Your task to perform on an android device: Open my contact list Image 0: 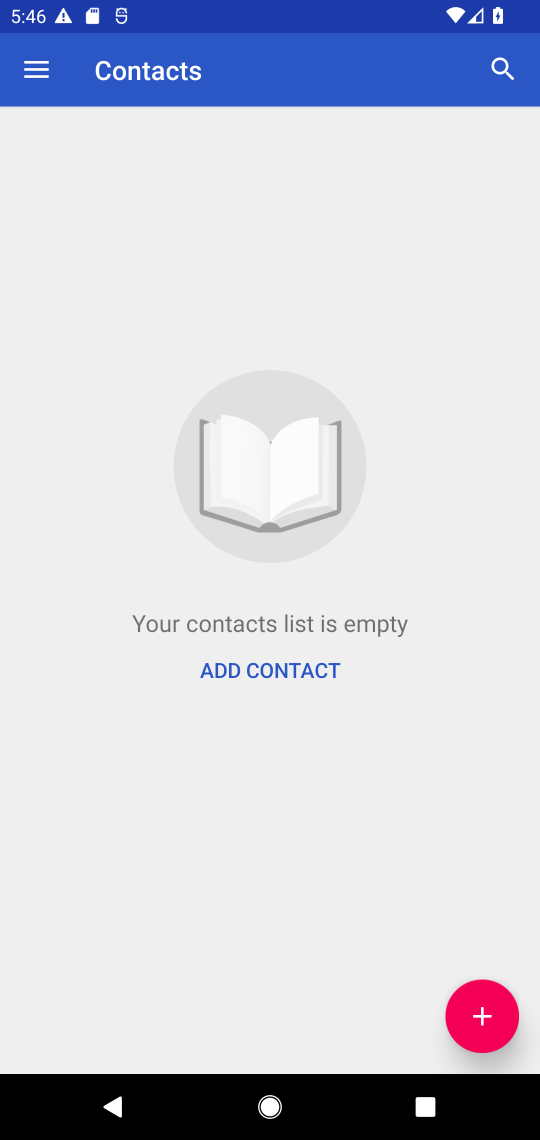
Step 0: press home button
Your task to perform on an android device: Open my contact list Image 1: 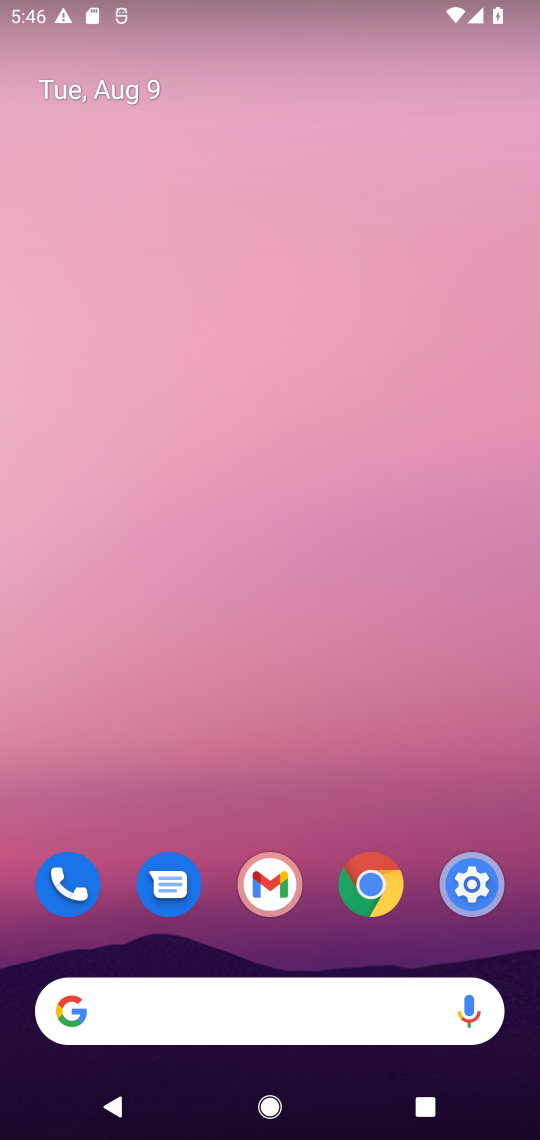
Step 1: drag from (198, 1027) to (269, 178)
Your task to perform on an android device: Open my contact list Image 2: 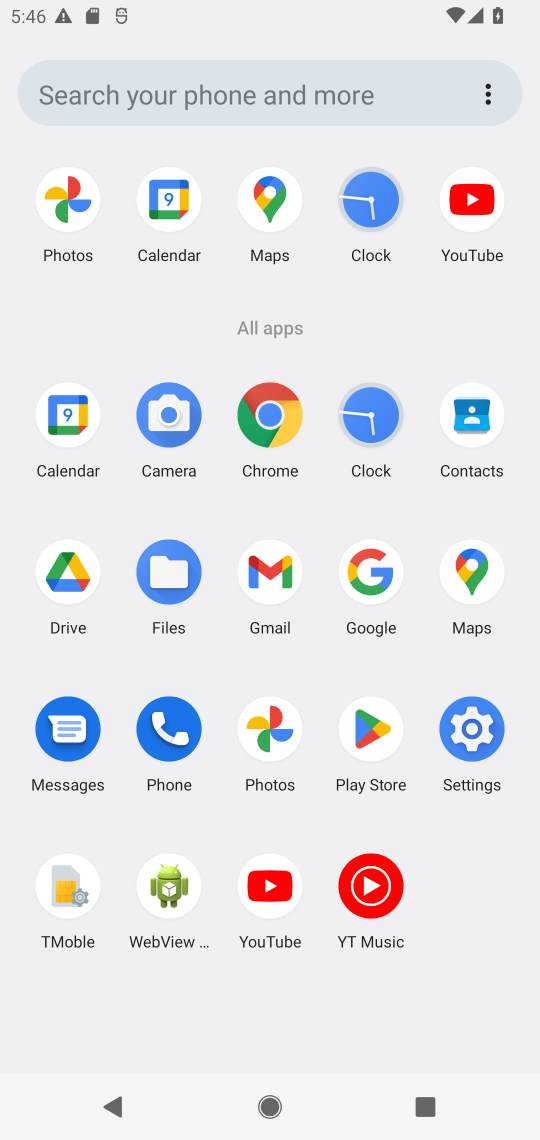
Step 2: click (472, 417)
Your task to perform on an android device: Open my contact list Image 3: 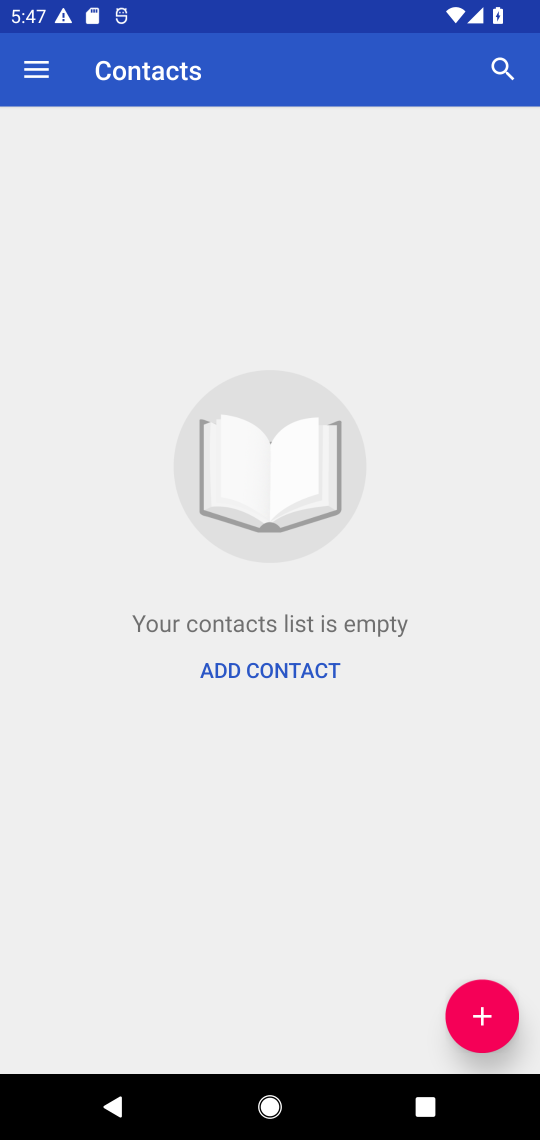
Step 3: task complete